Your task to perform on an android device: refresh tabs in the chrome app Image 0: 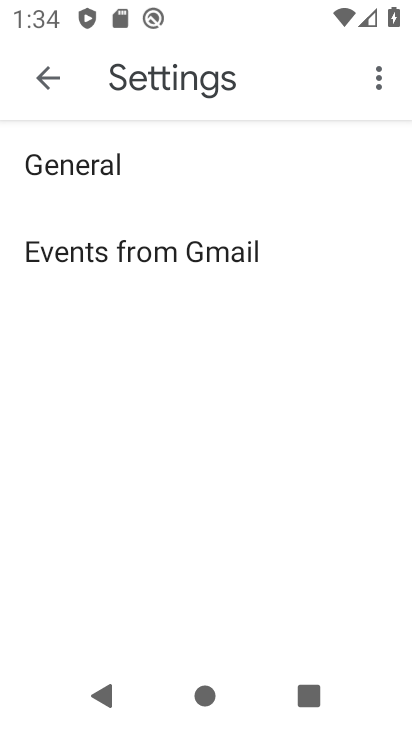
Step 0: press home button
Your task to perform on an android device: refresh tabs in the chrome app Image 1: 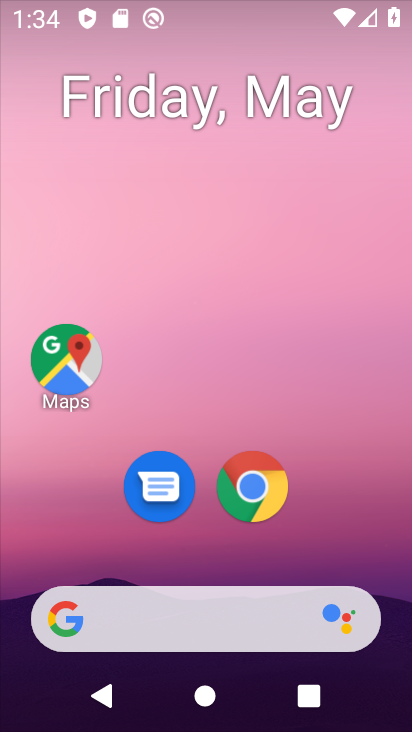
Step 1: drag from (381, 649) to (377, 595)
Your task to perform on an android device: refresh tabs in the chrome app Image 2: 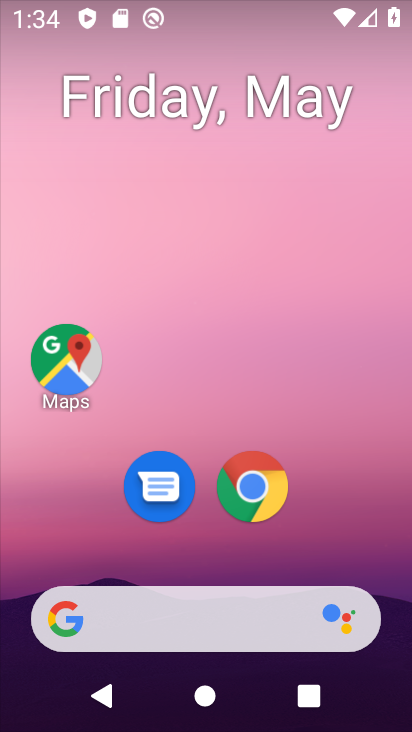
Step 2: drag from (378, 579) to (305, 48)
Your task to perform on an android device: refresh tabs in the chrome app Image 3: 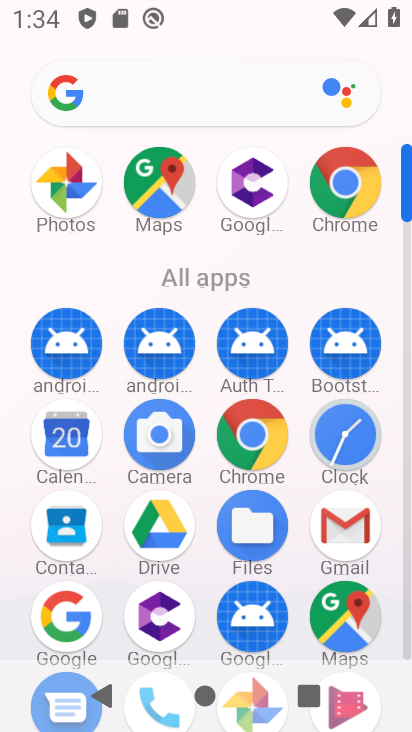
Step 3: click (334, 195)
Your task to perform on an android device: refresh tabs in the chrome app Image 4: 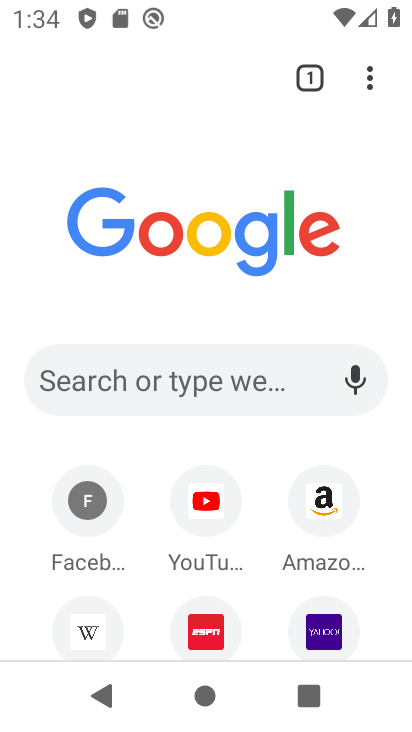
Step 4: click (369, 67)
Your task to perform on an android device: refresh tabs in the chrome app Image 5: 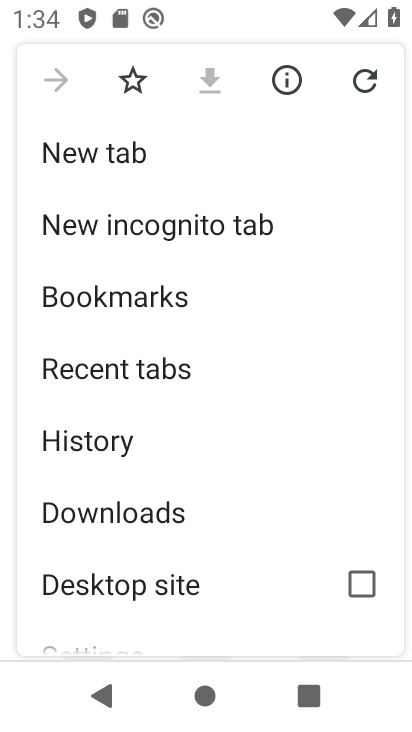
Step 5: click (368, 73)
Your task to perform on an android device: refresh tabs in the chrome app Image 6: 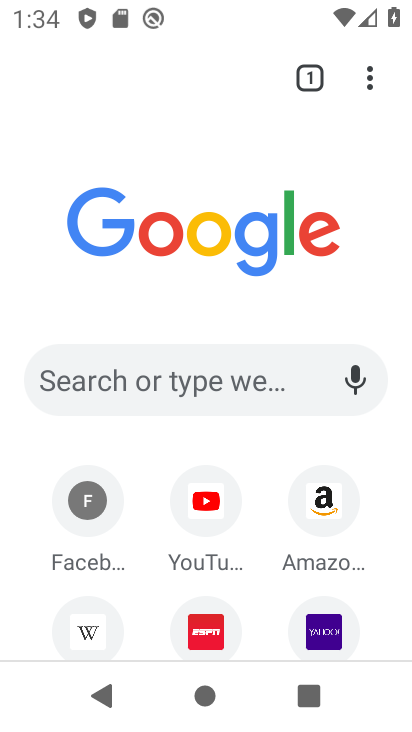
Step 6: task complete